Your task to perform on an android device: turn on location history Image 0: 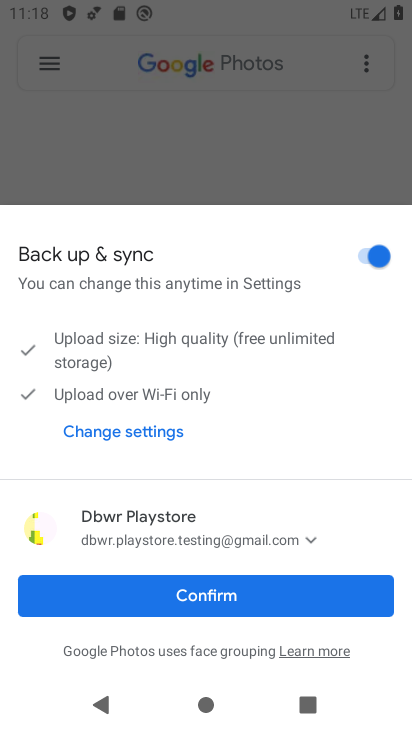
Step 0: press home button
Your task to perform on an android device: turn on location history Image 1: 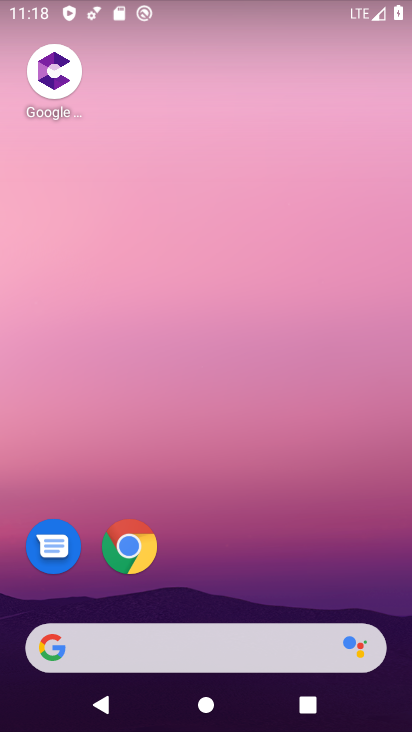
Step 1: drag from (288, 535) to (227, 88)
Your task to perform on an android device: turn on location history Image 2: 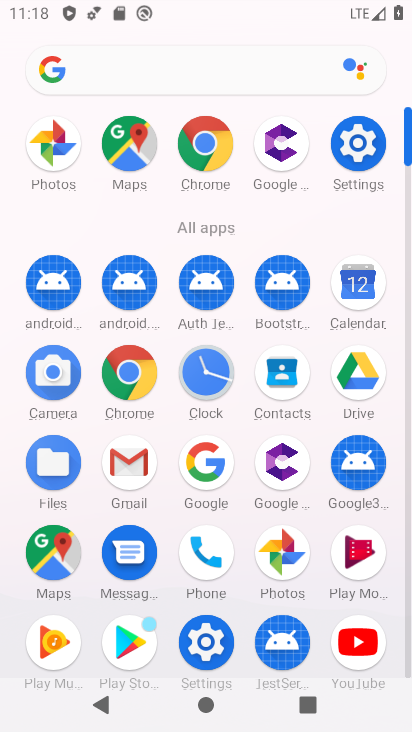
Step 2: click (359, 142)
Your task to perform on an android device: turn on location history Image 3: 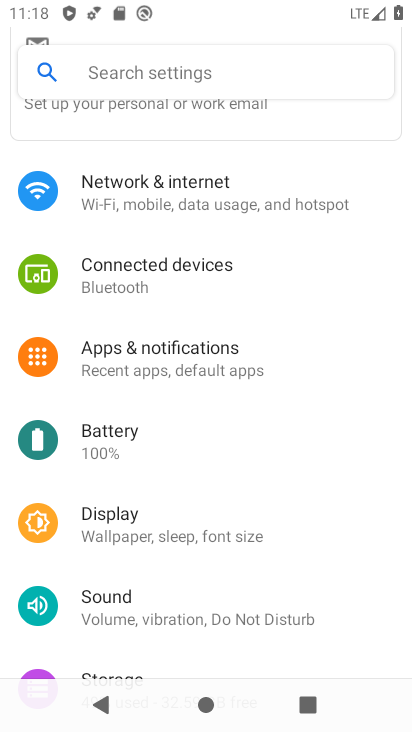
Step 3: drag from (237, 591) to (236, 287)
Your task to perform on an android device: turn on location history Image 4: 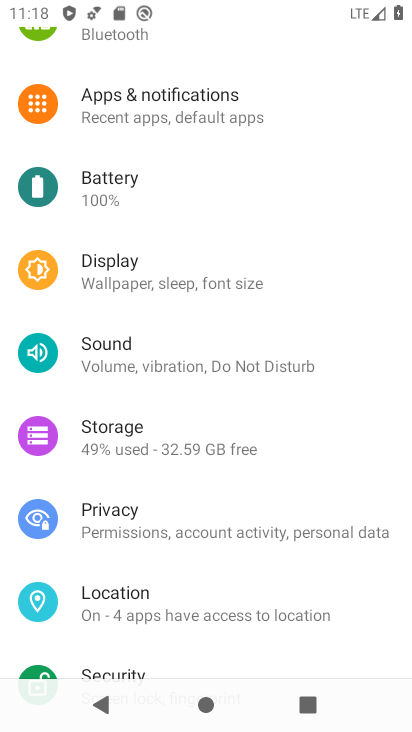
Step 4: click (246, 590)
Your task to perform on an android device: turn on location history Image 5: 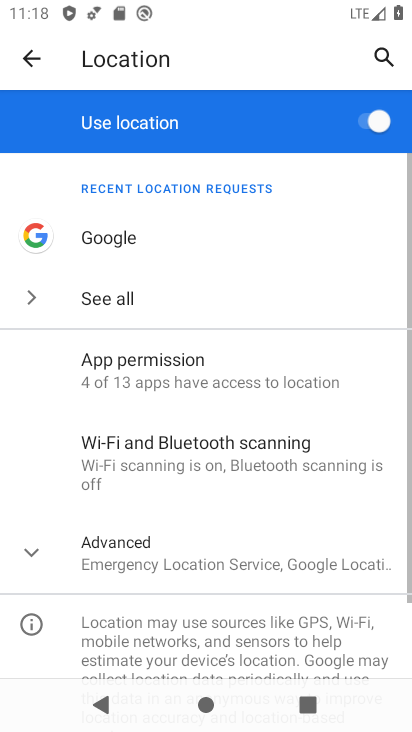
Step 5: click (238, 573)
Your task to perform on an android device: turn on location history Image 6: 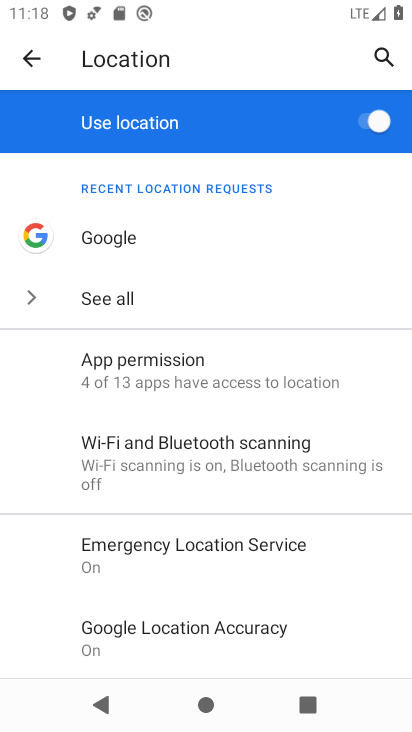
Step 6: drag from (240, 572) to (237, 292)
Your task to perform on an android device: turn on location history Image 7: 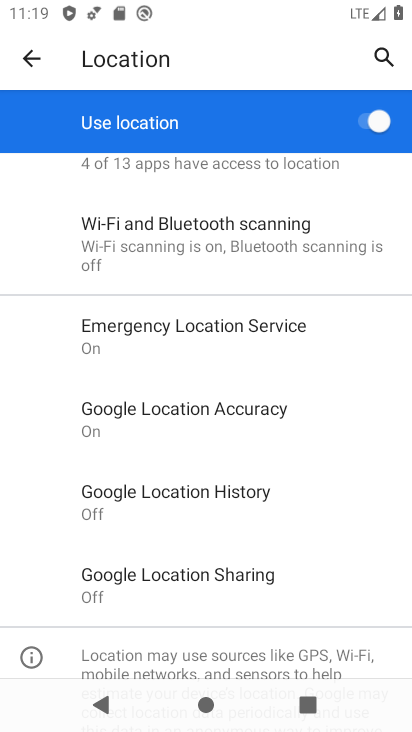
Step 7: click (231, 495)
Your task to perform on an android device: turn on location history Image 8: 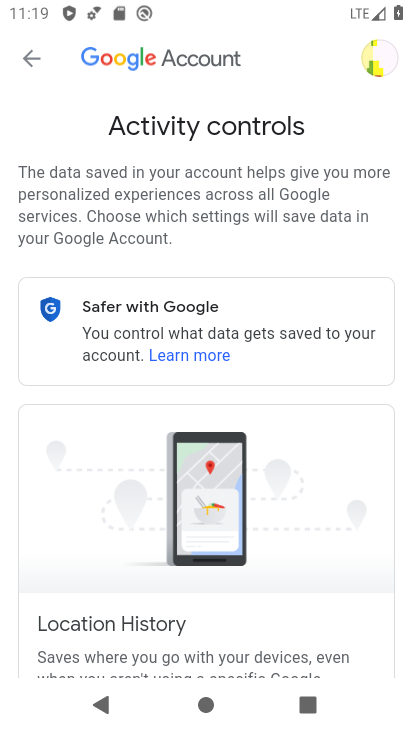
Step 8: task complete